Your task to perform on an android device: Go to settings Image 0: 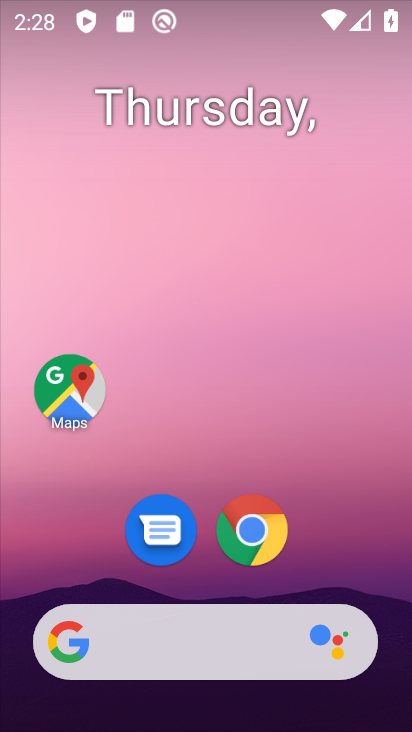
Step 0: drag from (360, 534) to (360, 312)
Your task to perform on an android device: Go to settings Image 1: 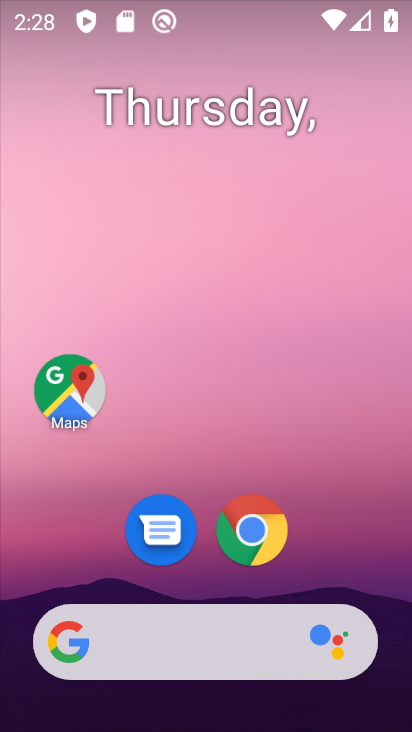
Step 1: drag from (394, 552) to (308, 97)
Your task to perform on an android device: Go to settings Image 2: 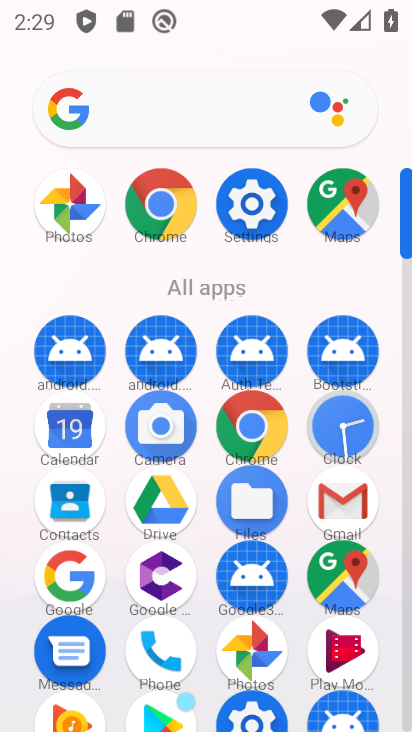
Step 2: click (247, 709)
Your task to perform on an android device: Go to settings Image 3: 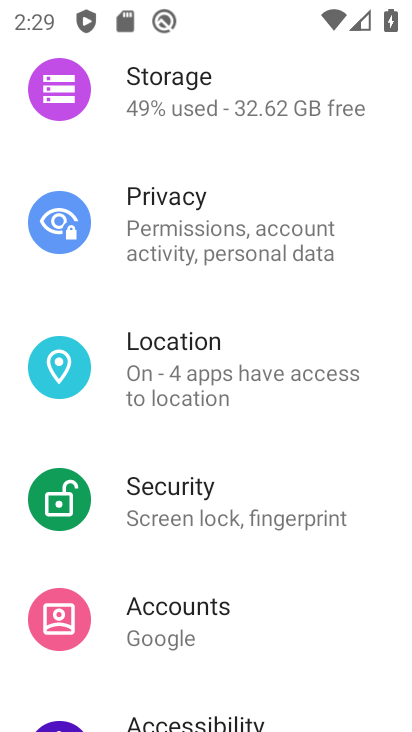
Step 3: task complete